Your task to perform on an android device: turn off improve location accuracy Image 0: 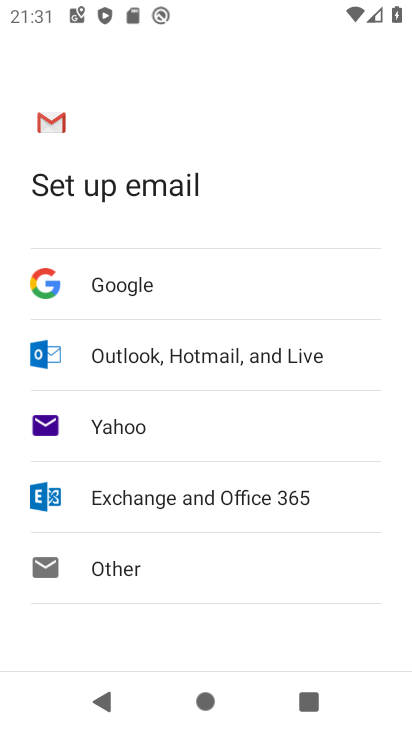
Step 0: press home button
Your task to perform on an android device: turn off improve location accuracy Image 1: 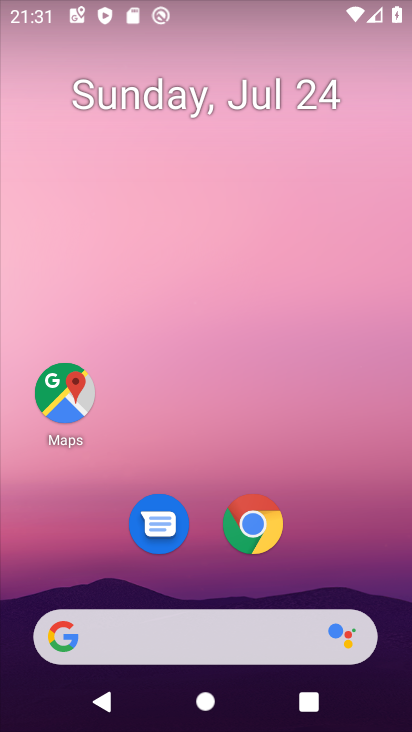
Step 1: drag from (147, 652) to (313, 87)
Your task to perform on an android device: turn off improve location accuracy Image 2: 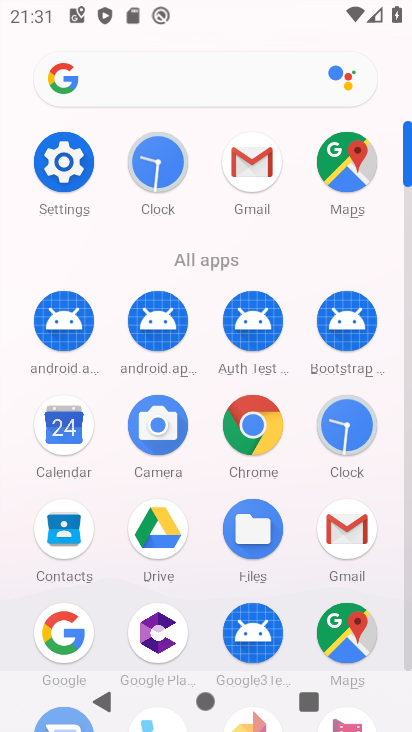
Step 2: click (65, 166)
Your task to perform on an android device: turn off improve location accuracy Image 3: 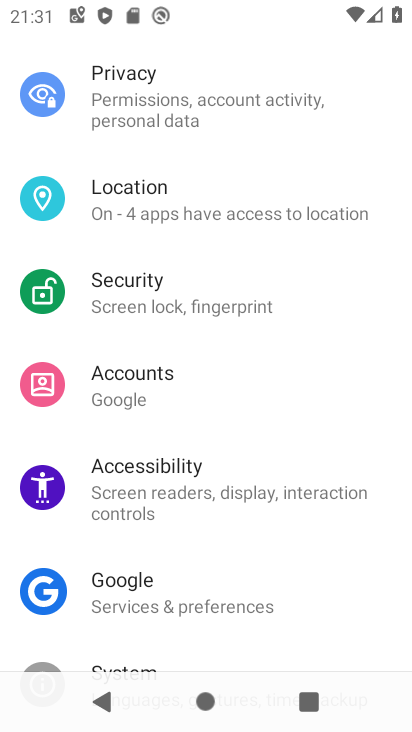
Step 3: click (158, 201)
Your task to perform on an android device: turn off improve location accuracy Image 4: 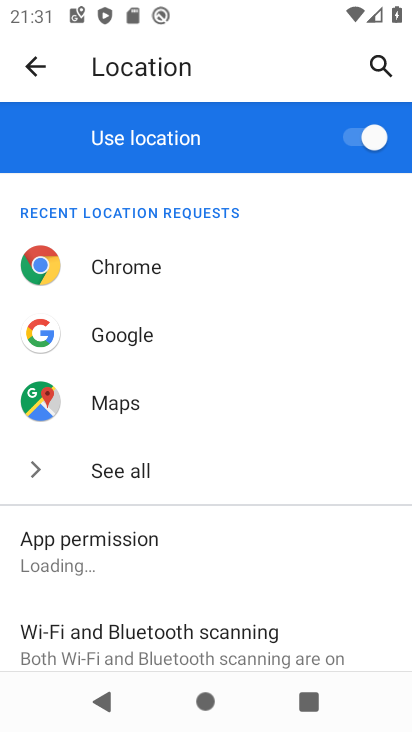
Step 4: click (397, 158)
Your task to perform on an android device: turn off improve location accuracy Image 5: 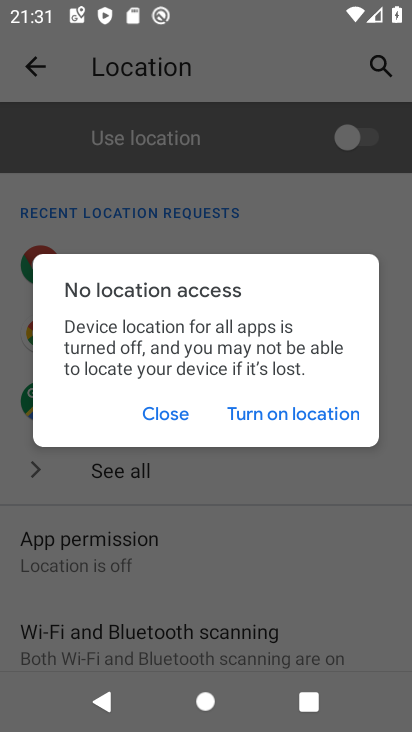
Step 5: click (367, 134)
Your task to perform on an android device: turn off improve location accuracy Image 6: 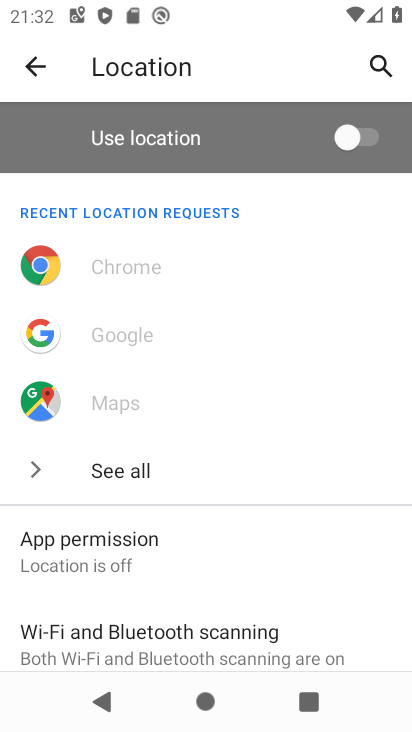
Step 6: click (365, 139)
Your task to perform on an android device: turn off improve location accuracy Image 7: 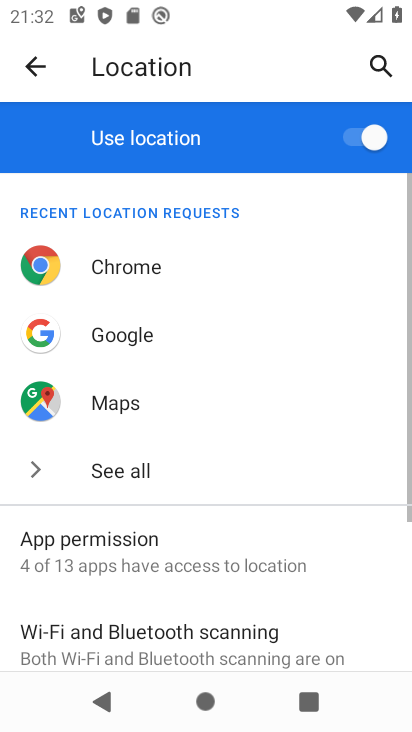
Step 7: drag from (216, 564) to (299, 79)
Your task to perform on an android device: turn off improve location accuracy Image 8: 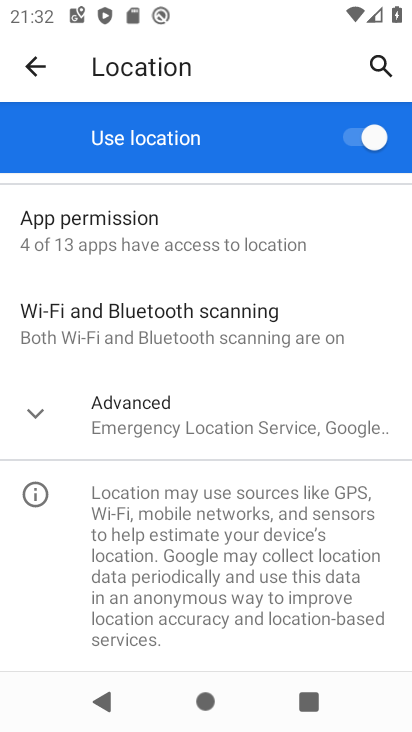
Step 8: click (161, 433)
Your task to perform on an android device: turn off improve location accuracy Image 9: 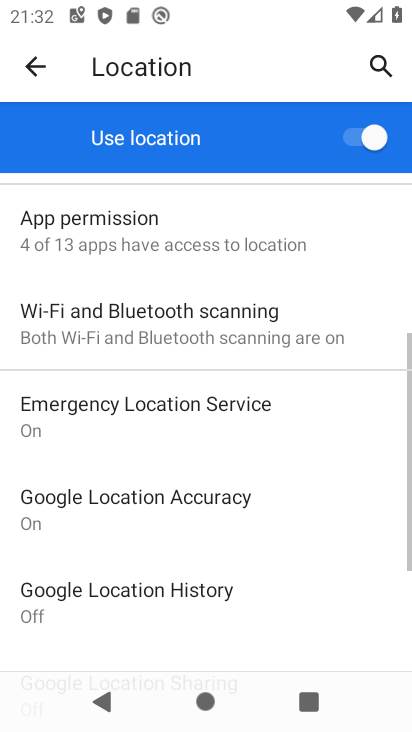
Step 9: click (178, 496)
Your task to perform on an android device: turn off improve location accuracy Image 10: 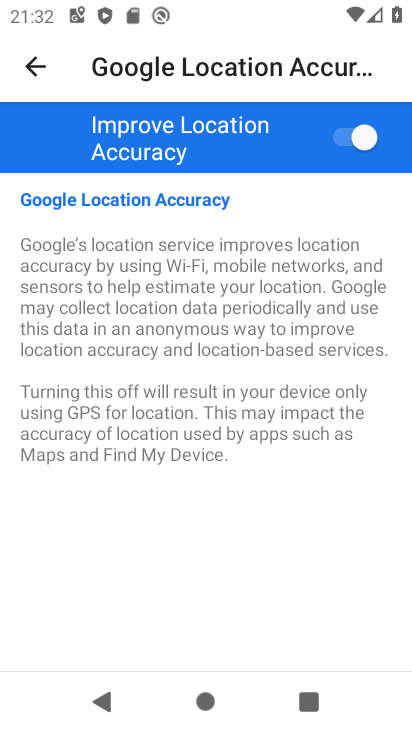
Step 10: click (341, 141)
Your task to perform on an android device: turn off improve location accuracy Image 11: 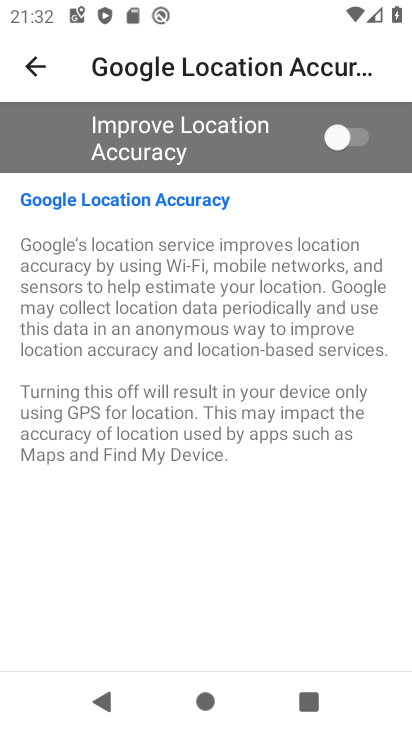
Step 11: task complete